Your task to perform on an android device: Open CNN.com Image 0: 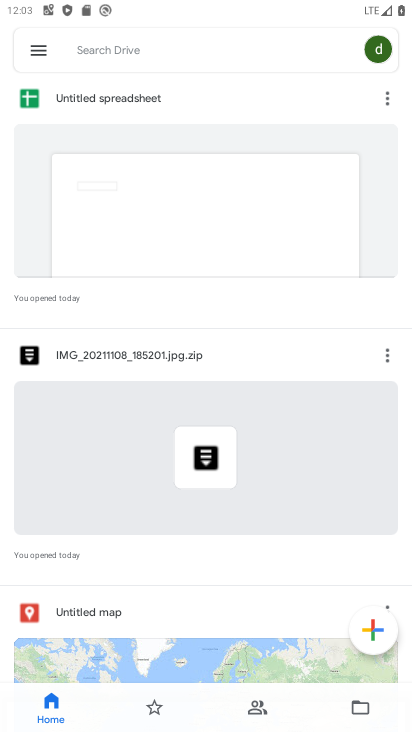
Step 0: press home button
Your task to perform on an android device: Open CNN.com Image 1: 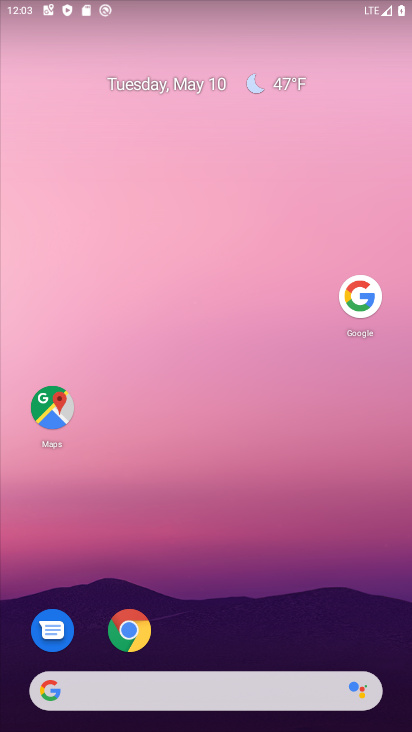
Step 1: drag from (123, 694) to (276, 126)
Your task to perform on an android device: Open CNN.com Image 2: 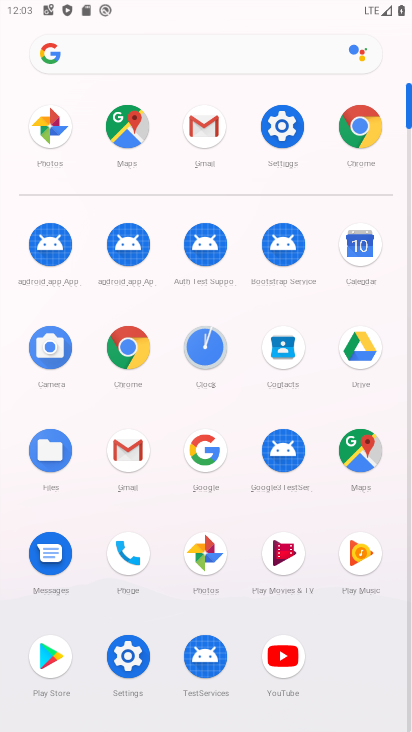
Step 2: click (362, 142)
Your task to perform on an android device: Open CNN.com Image 3: 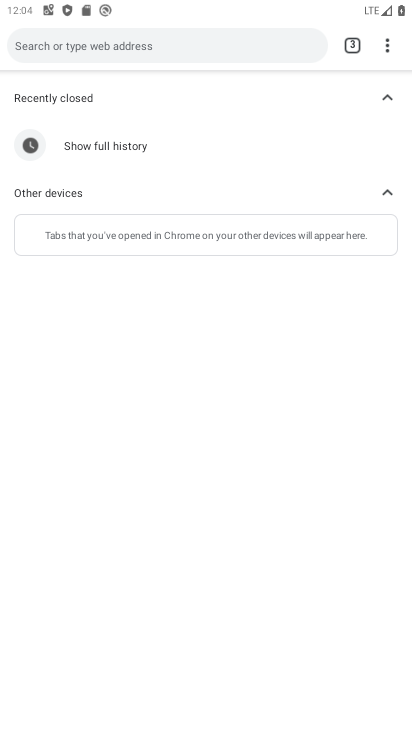
Step 3: drag from (384, 49) to (331, 88)
Your task to perform on an android device: Open CNN.com Image 4: 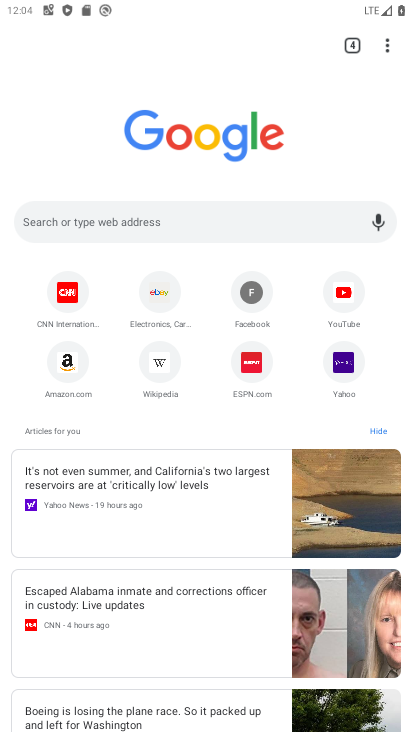
Step 4: click (136, 220)
Your task to perform on an android device: Open CNN.com Image 5: 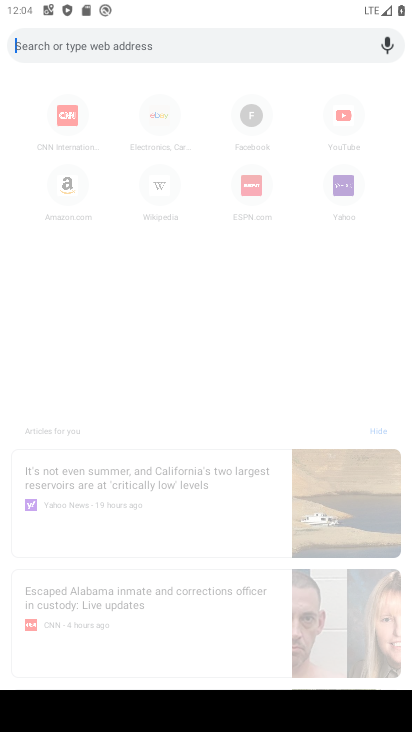
Step 5: type "cnn.com"
Your task to perform on an android device: Open CNN.com Image 6: 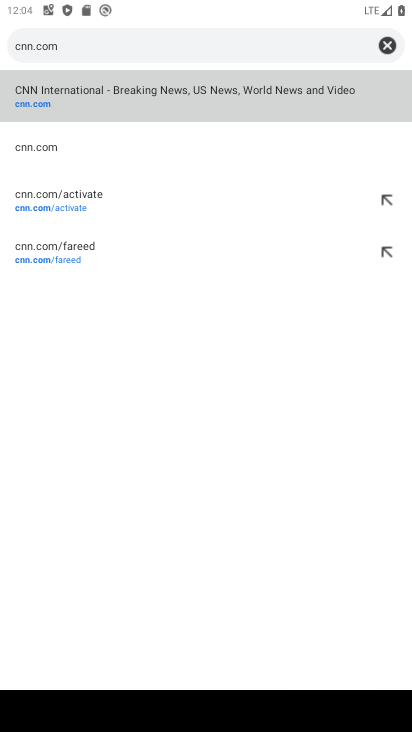
Step 6: click (107, 102)
Your task to perform on an android device: Open CNN.com Image 7: 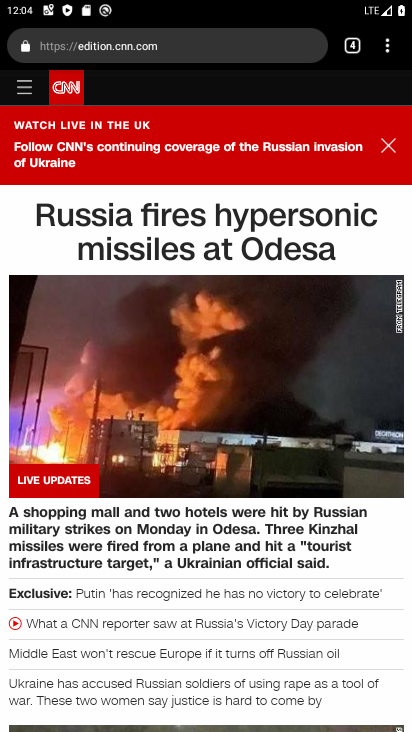
Step 7: task complete